Your task to perform on an android device: Go to calendar. Show me events next week Image 0: 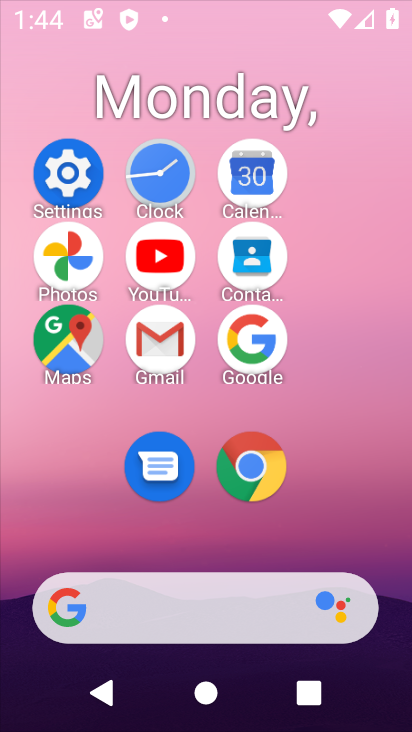
Step 0: click (261, 489)
Your task to perform on an android device: Go to calendar. Show me events next week Image 1: 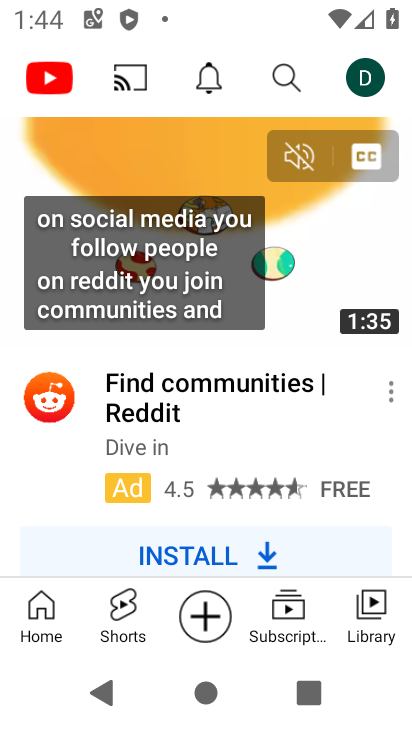
Step 1: press back button
Your task to perform on an android device: Go to calendar. Show me events next week Image 2: 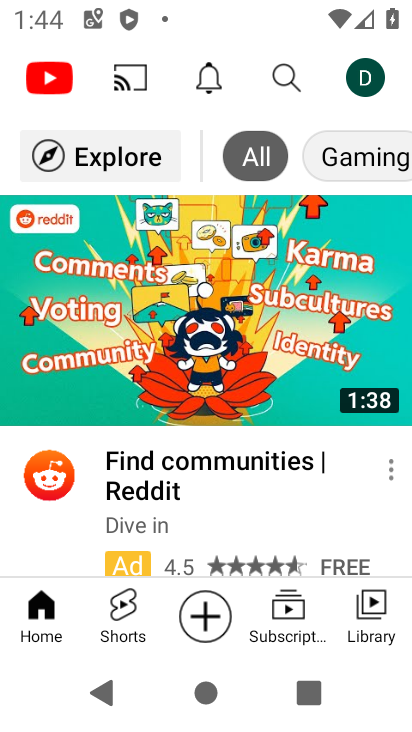
Step 2: press back button
Your task to perform on an android device: Go to calendar. Show me events next week Image 3: 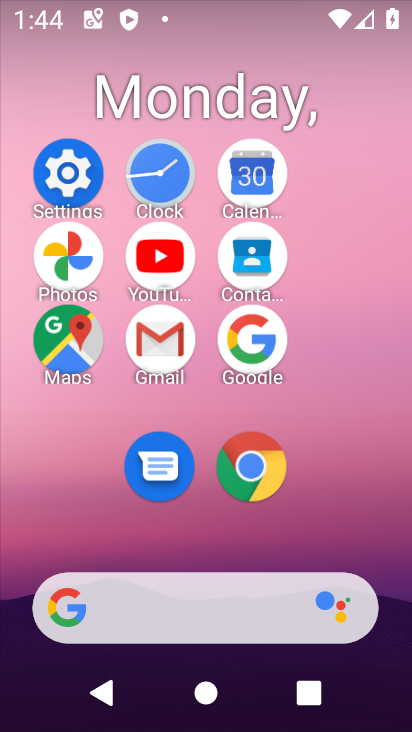
Step 3: click (270, 164)
Your task to perform on an android device: Go to calendar. Show me events next week Image 4: 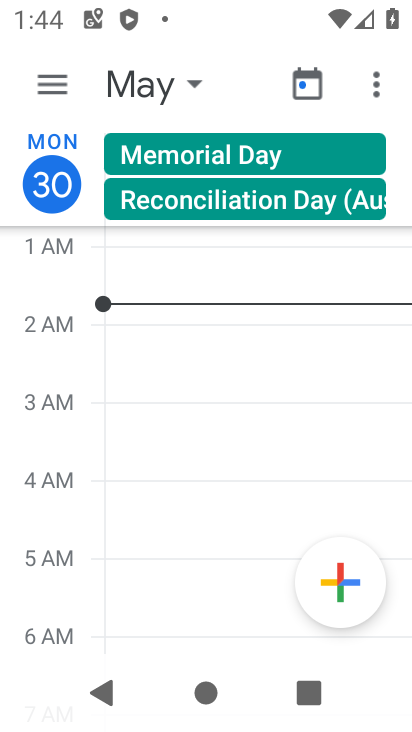
Step 4: click (68, 95)
Your task to perform on an android device: Go to calendar. Show me events next week Image 5: 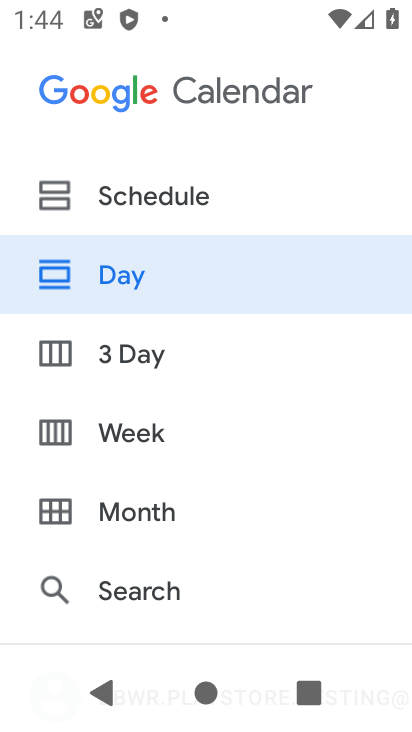
Step 5: click (185, 426)
Your task to perform on an android device: Go to calendar. Show me events next week Image 6: 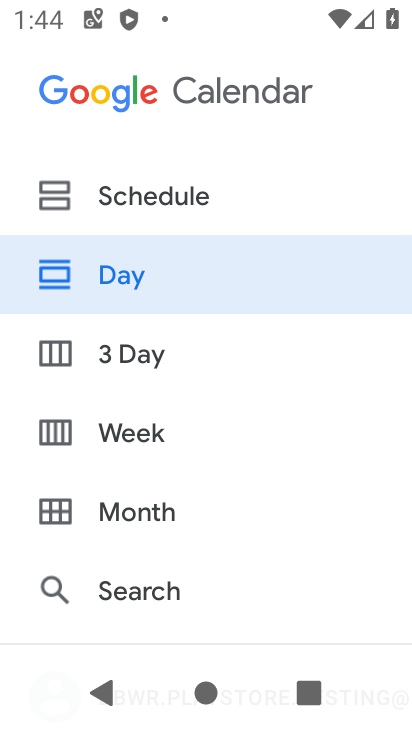
Step 6: click (207, 408)
Your task to perform on an android device: Go to calendar. Show me events next week Image 7: 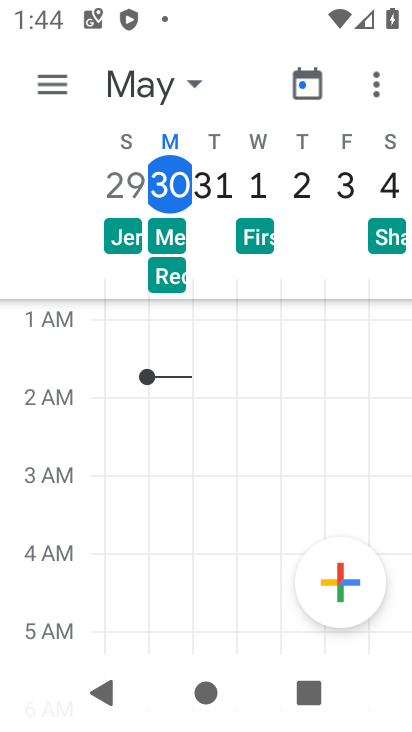
Step 7: task complete